Your task to perform on an android device: What's the weather? Image 0: 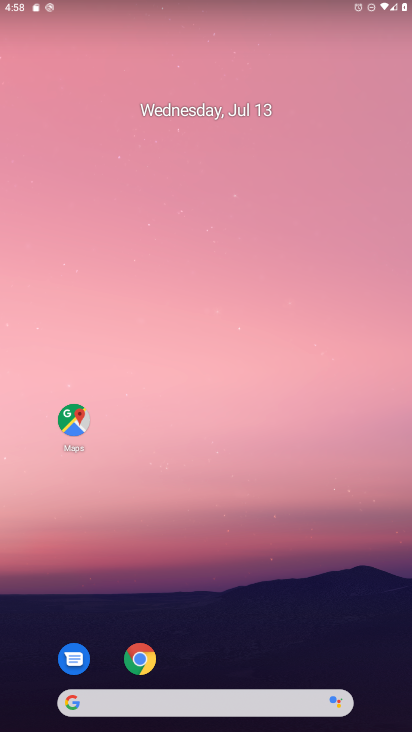
Step 0: drag from (241, 630) to (198, 166)
Your task to perform on an android device: What's the weather? Image 1: 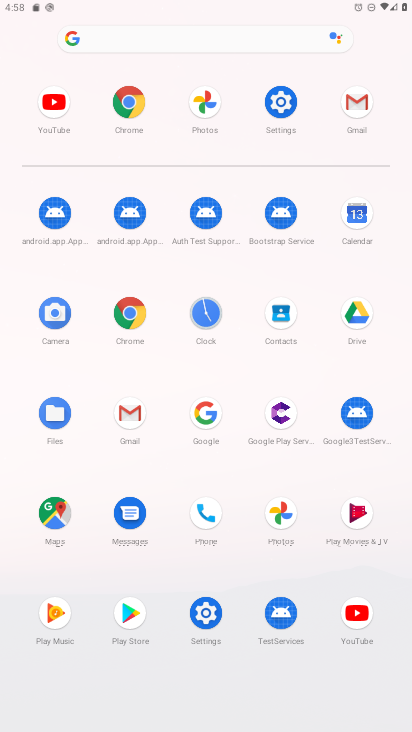
Step 1: click (131, 103)
Your task to perform on an android device: What's the weather? Image 2: 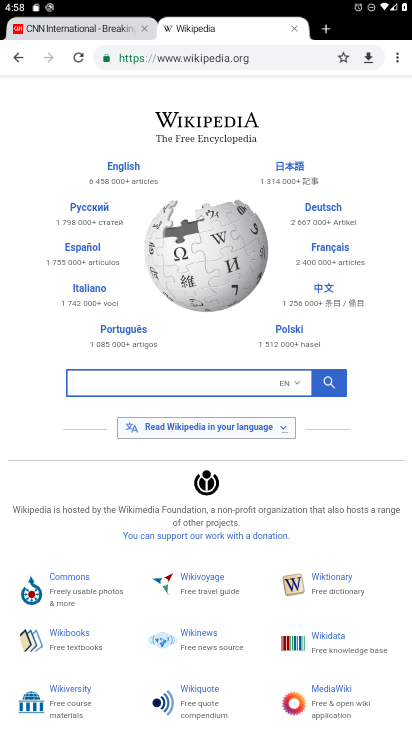
Step 2: click (262, 66)
Your task to perform on an android device: What's the weather? Image 3: 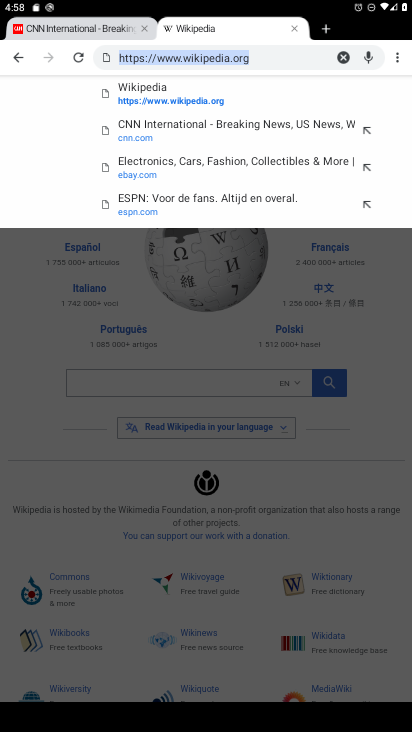
Step 3: type "weather"
Your task to perform on an android device: What's the weather? Image 4: 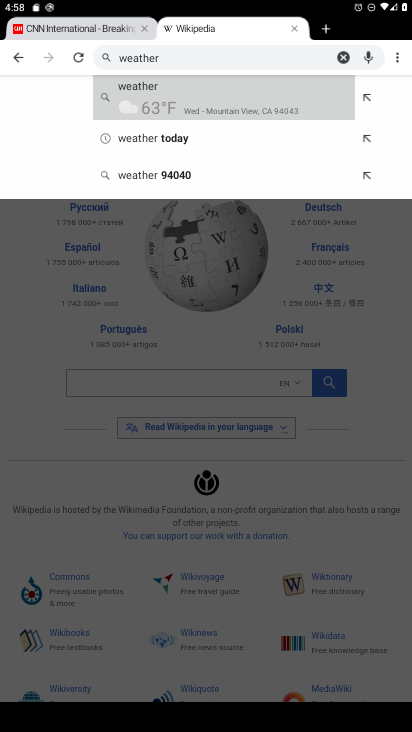
Step 4: click (159, 102)
Your task to perform on an android device: What's the weather? Image 5: 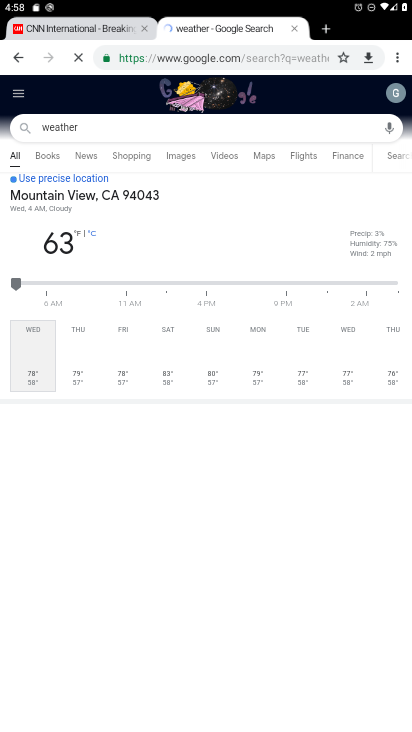
Step 5: task complete